Your task to perform on an android device: search for starred emails in the gmail app Image 0: 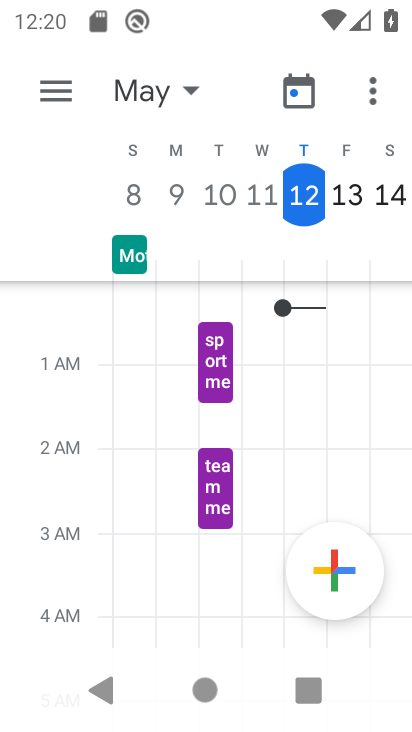
Step 0: press home button
Your task to perform on an android device: search for starred emails in the gmail app Image 1: 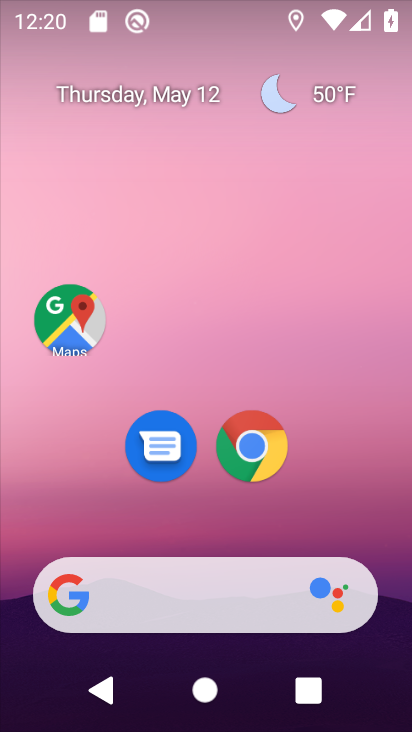
Step 1: drag from (306, 541) to (365, 132)
Your task to perform on an android device: search for starred emails in the gmail app Image 2: 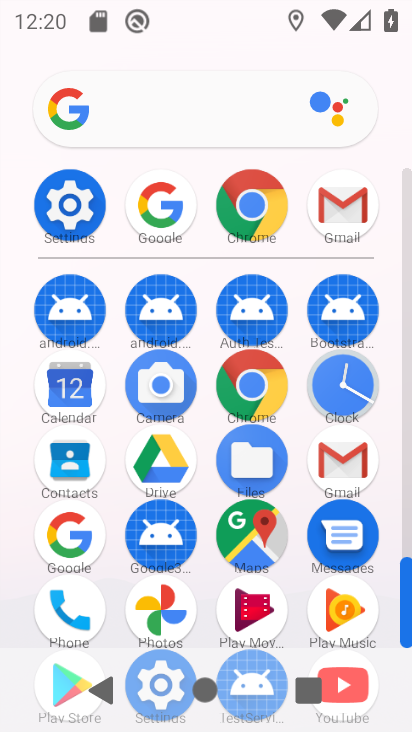
Step 2: click (354, 198)
Your task to perform on an android device: search for starred emails in the gmail app Image 3: 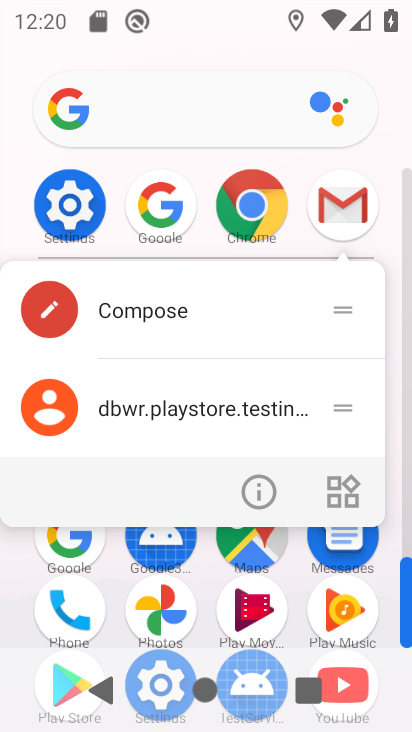
Step 3: click (353, 200)
Your task to perform on an android device: search for starred emails in the gmail app Image 4: 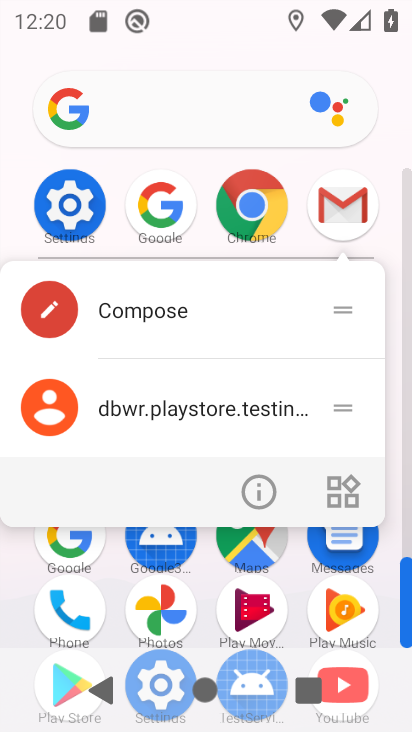
Step 4: click (346, 215)
Your task to perform on an android device: search for starred emails in the gmail app Image 5: 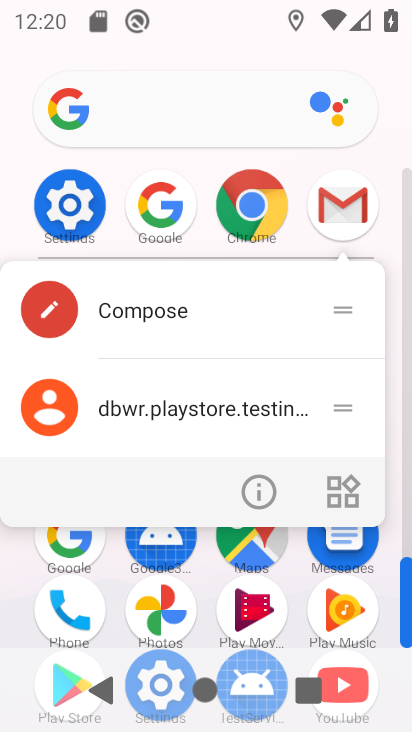
Step 5: click (360, 215)
Your task to perform on an android device: search for starred emails in the gmail app Image 6: 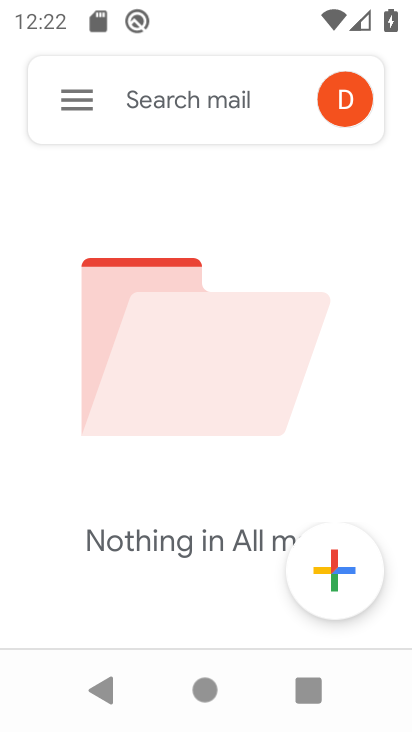
Step 6: click (63, 95)
Your task to perform on an android device: search for starred emails in the gmail app Image 7: 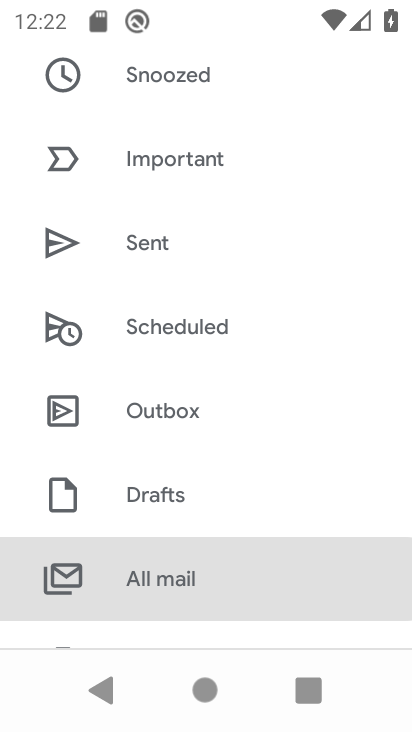
Step 7: drag from (200, 350) to (255, 603)
Your task to perform on an android device: search for starred emails in the gmail app Image 8: 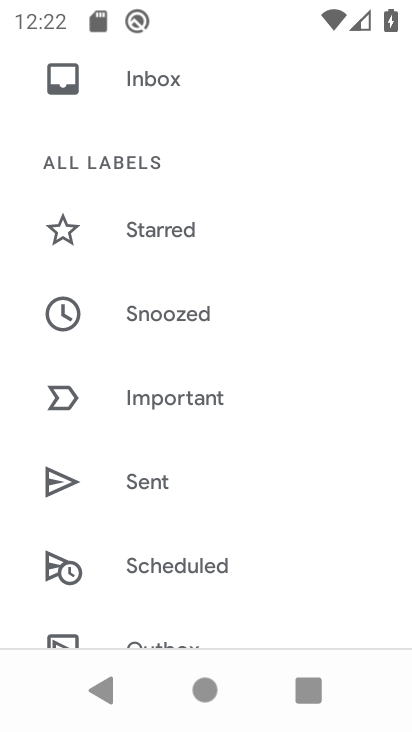
Step 8: click (192, 230)
Your task to perform on an android device: search for starred emails in the gmail app Image 9: 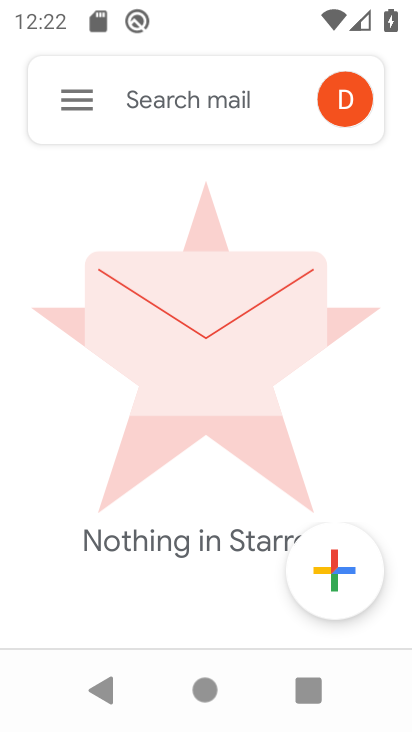
Step 9: task complete